Your task to perform on an android device: Check the settings for the Spotify app Image 0: 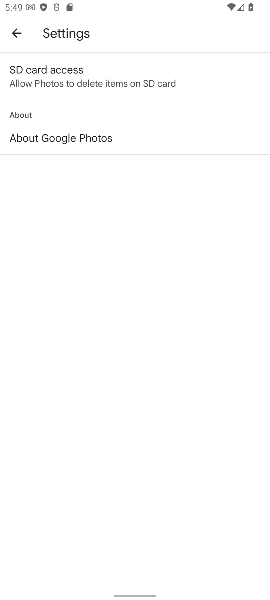
Step 0: press home button
Your task to perform on an android device: Check the settings for the Spotify app Image 1: 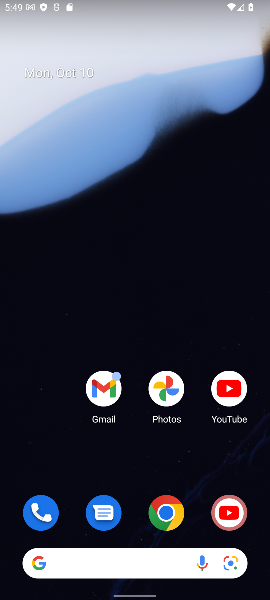
Step 1: task complete